Your task to perform on an android device: Open the stopwatch Image 0: 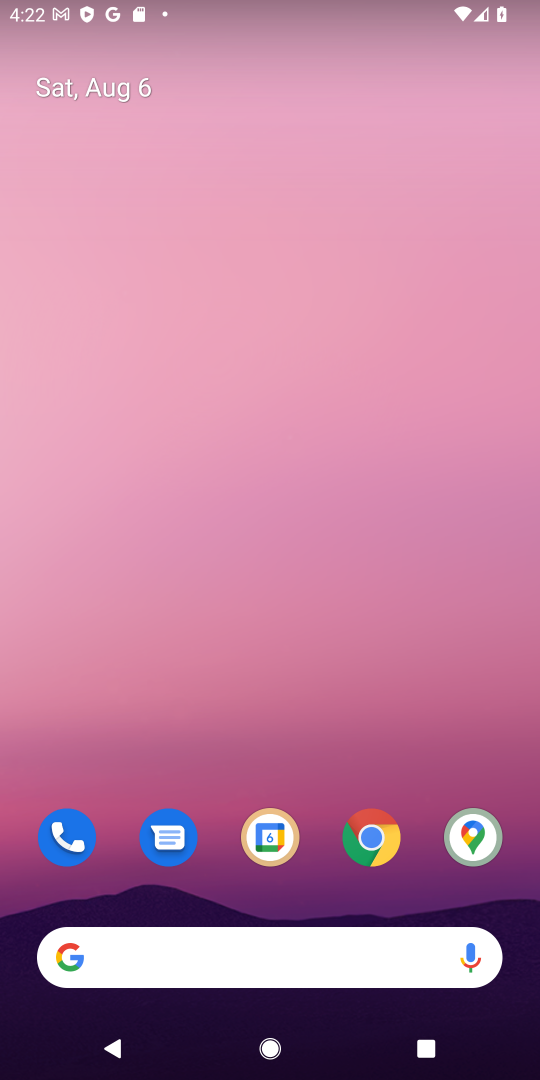
Step 0: drag from (429, 901) to (405, 136)
Your task to perform on an android device: Open the stopwatch Image 1: 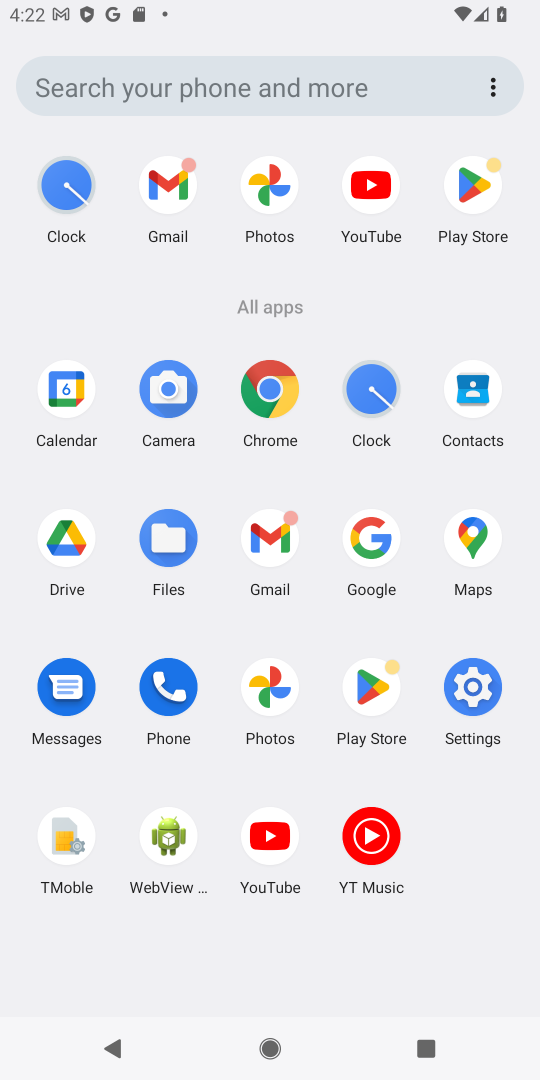
Step 1: click (372, 393)
Your task to perform on an android device: Open the stopwatch Image 2: 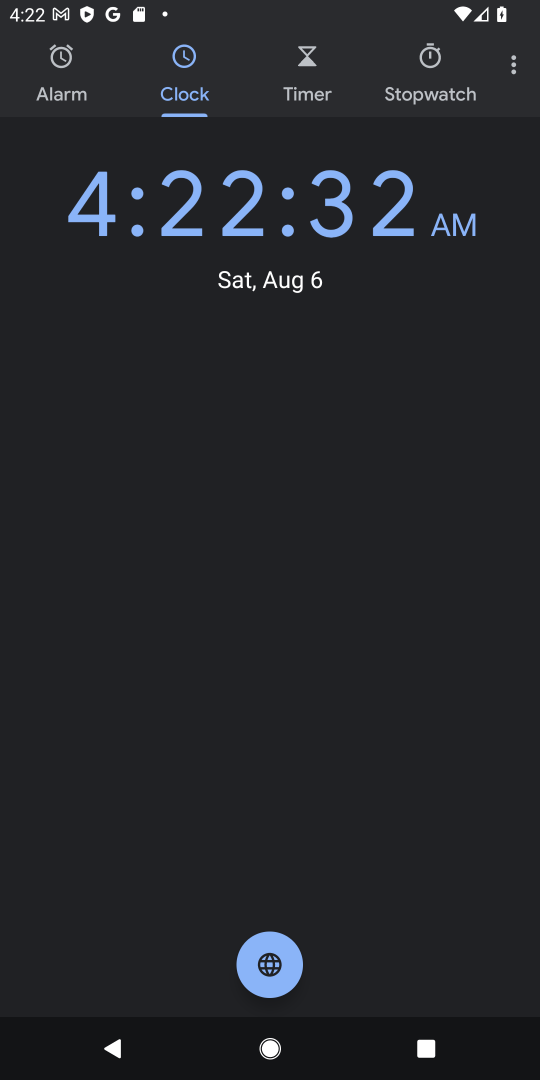
Step 2: click (427, 64)
Your task to perform on an android device: Open the stopwatch Image 3: 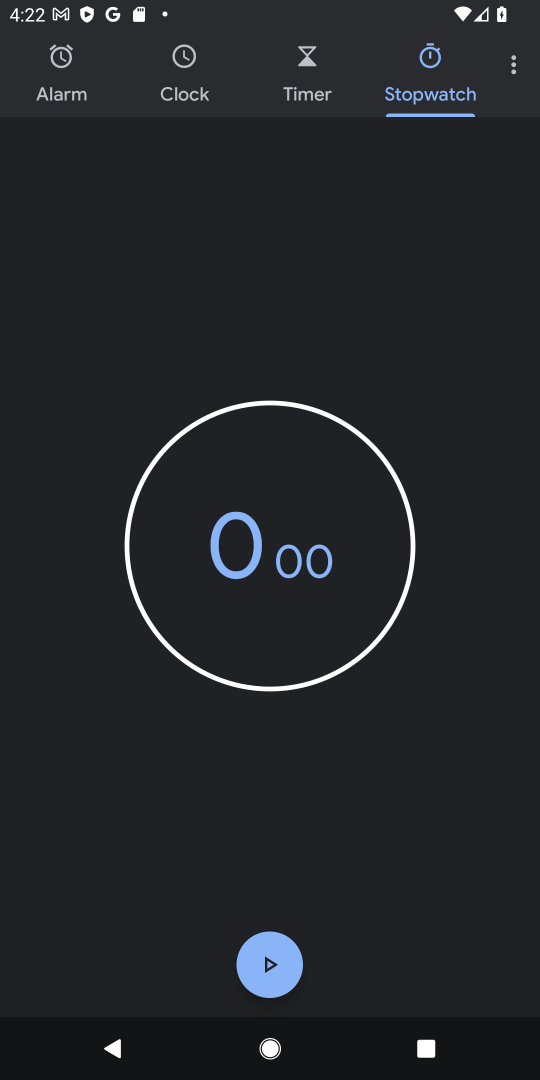
Step 3: task complete